Your task to perform on an android device: Go to network settings Image 0: 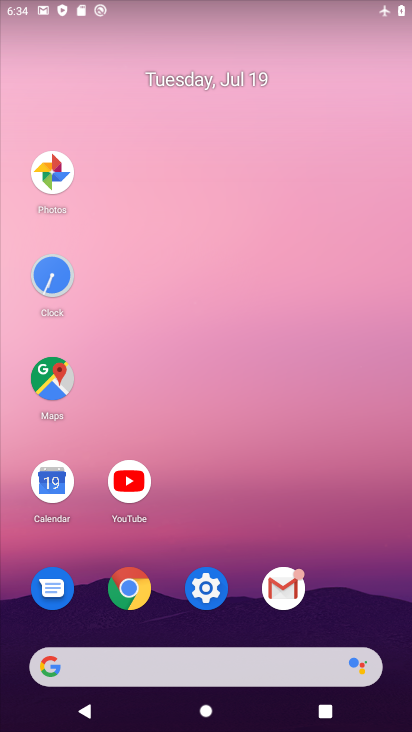
Step 0: click (206, 592)
Your task to perform on an android device: Go to network settings Image 1: 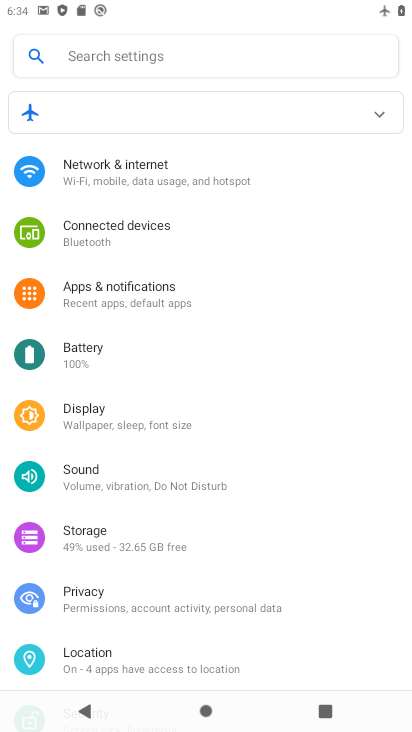
Step 1: click (112, 160)
Your task to perform on an android device: Go to network settings Image 2: 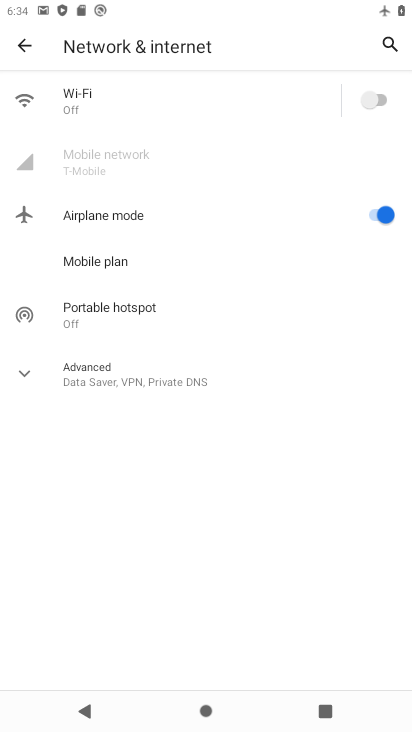
Step 2: task complete